Your task to perform on an android device: Go to ESPN.com Image 0: 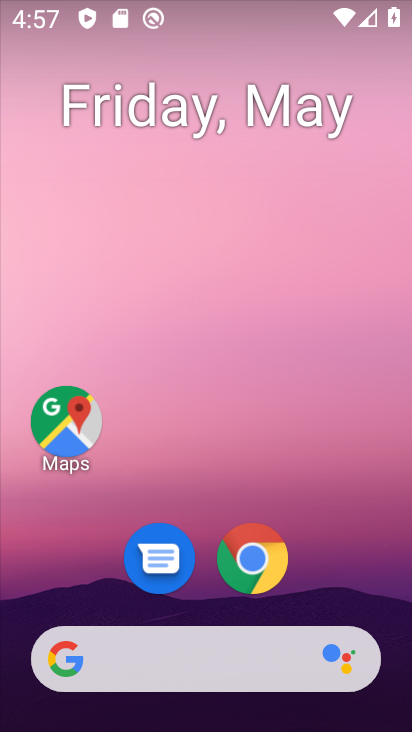
Step 0: drag from (388, 608) to (280, 174)
Your task to perform on an android device: Go to ESPN.com Image 1: 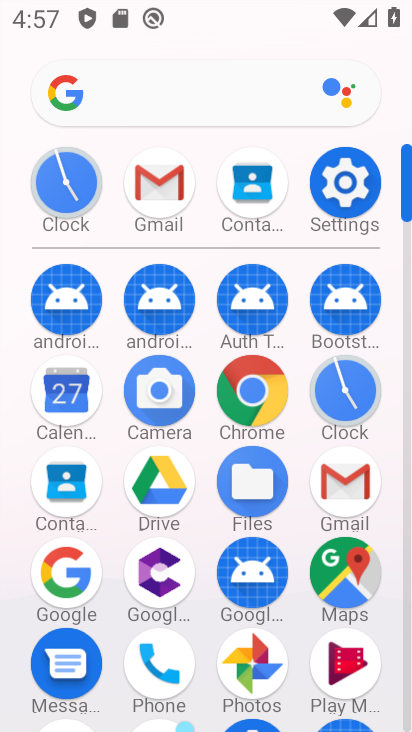
Step 1: click (239, 404)
Your task to perform on an android device: Go to ESPN.com Image 2: 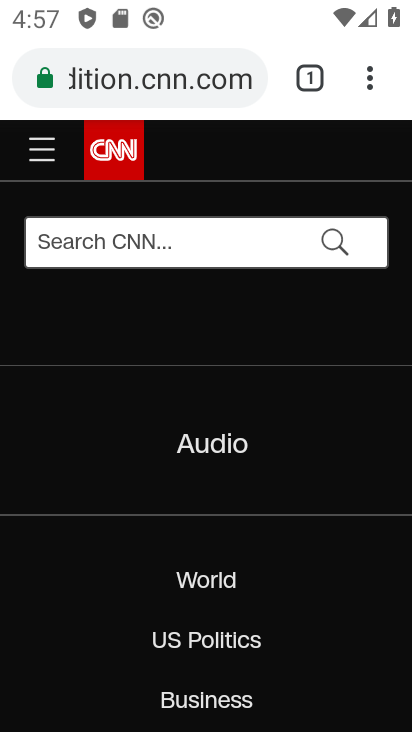
Step 2: click (152, 73)
Your task to perform on an android device: Go to ESPN.com Image 3: 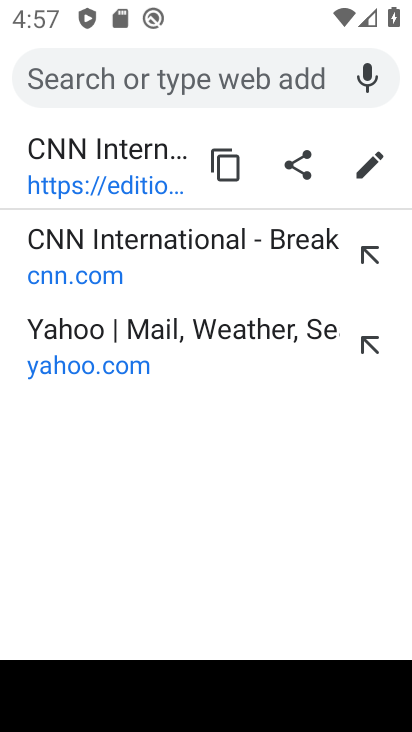
Step 3: type "espn.com"
Your task to perform on an android device: Go to ESPN.com Image 4: 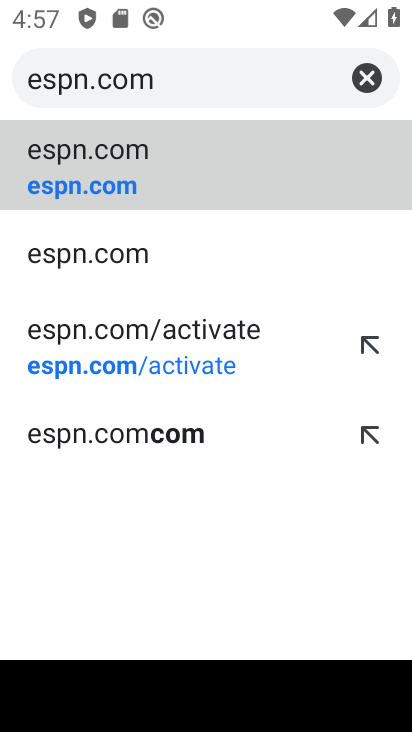
Step 4: click (117, 185)
Your task to perform on an android device: Go to ESPN.com Image 5: 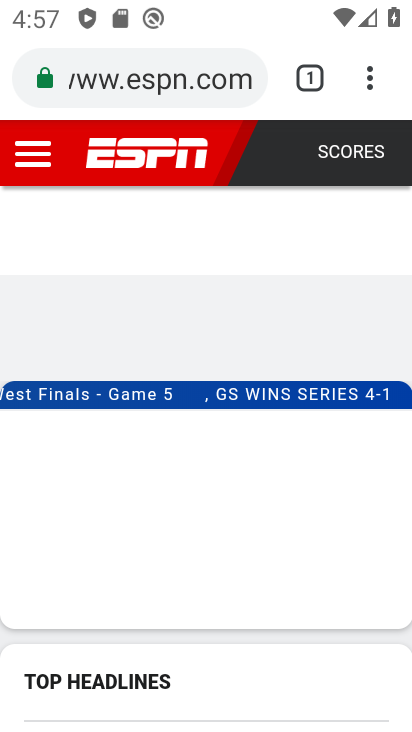
Step 5: task complete